Your task to perform on an android device: toggle priority inbox in the gmail app Image 0: 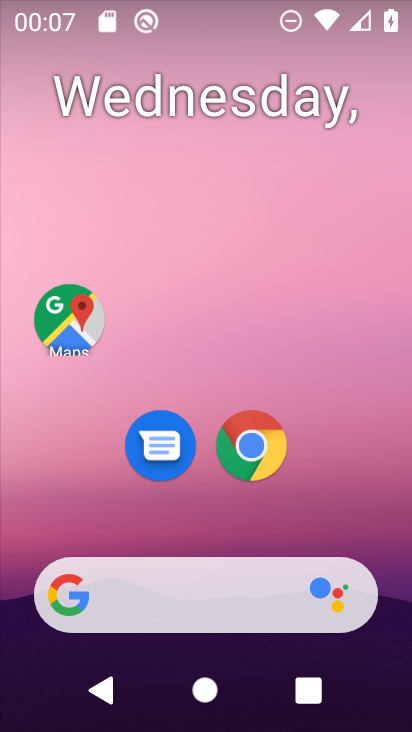
Step 0: drag from (274, 512) to (372, 54)
Your task to perform on an android device: toggle priority inbox in the gmail app Image 1: 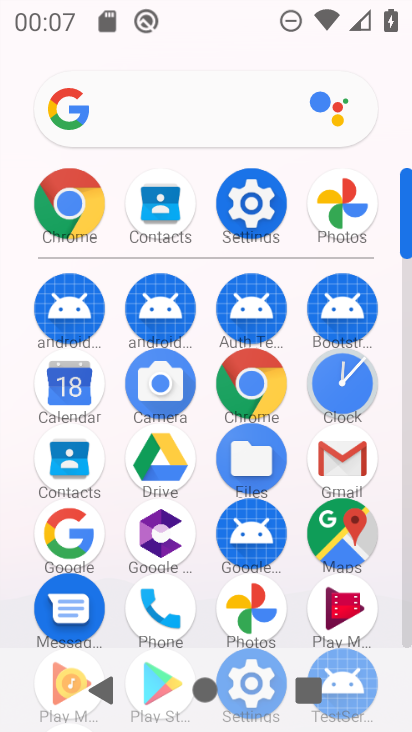
Step 1: click (337, 459)
Your task to perform on an android device: toggle priority inbox in the gmail app Image 2: 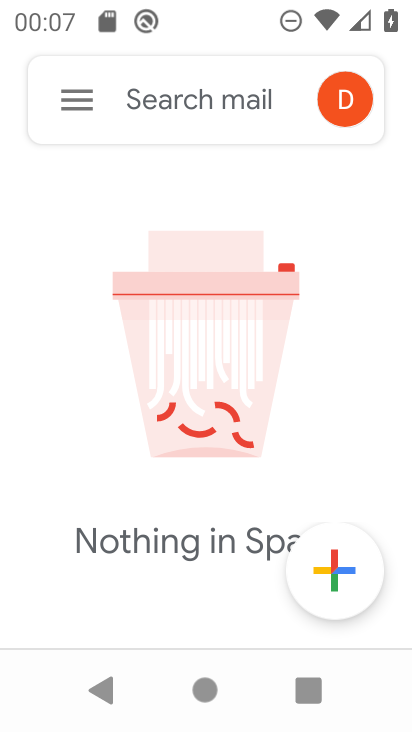
Step 2: click (87, 103)
Your task to perform on an android device: toggle priority inbox in the gmail app Image 3: 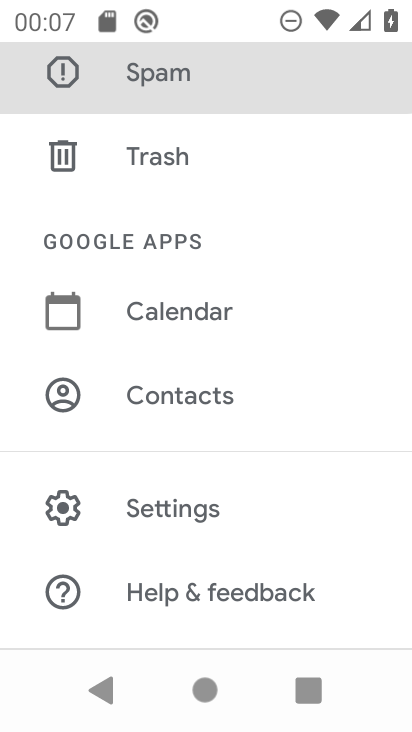
Step 3: click (185, 501)
Your task to perform on an android device: toggle priority inbox in the gmail app Image 4: 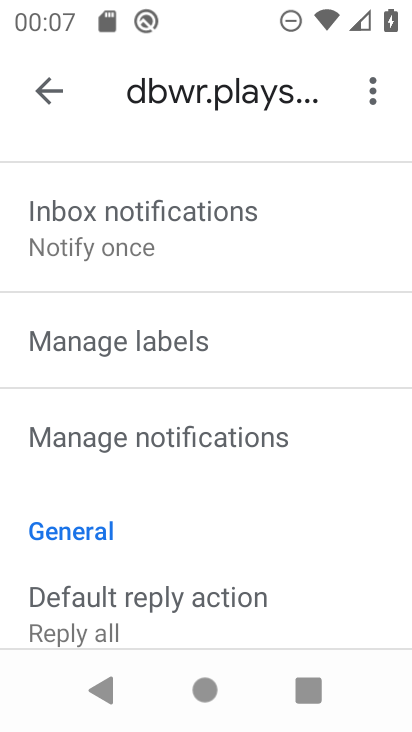
Step 4: drag from (197, 334) to (239, 589)
Your task to perform on an android device: toggle priority inbox in the gmail app Image 5: 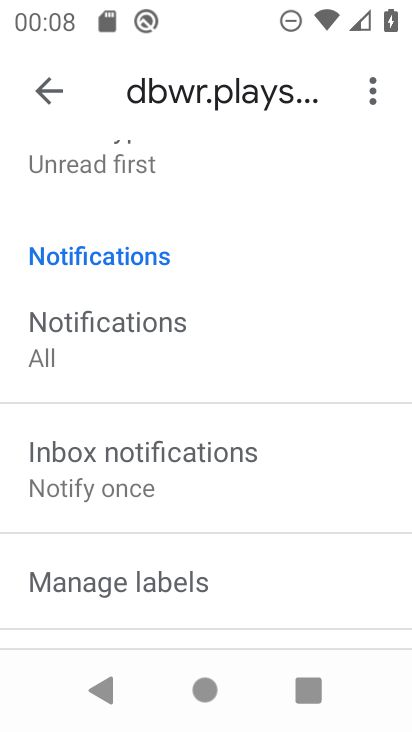
Step 5: drag from (177, 280) to (248, 519)
Your task to perform on an android device: toggle priority inbox in the gmail app Image 6: 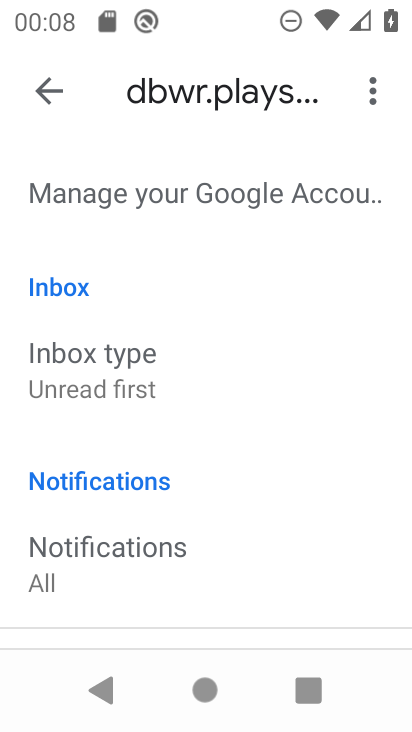
Step 6: click (178, 356)
Your task to perform on an android device: toggle priority inbox in the gmail app Image 7: 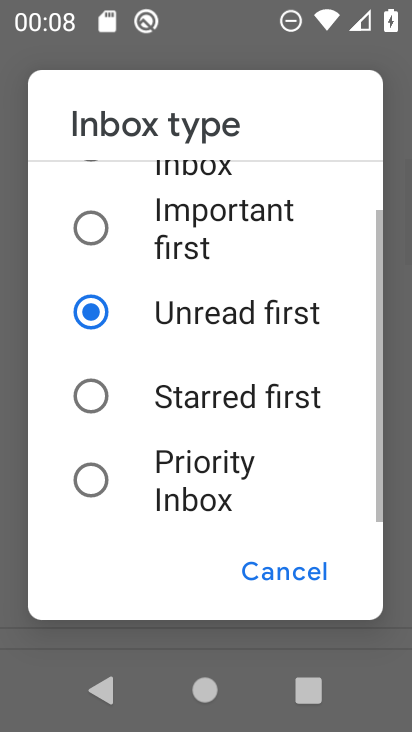
Step 7: click (174, 449)
Your task to perform on an android device: toggle priority inbox in the gmail app Image 8: 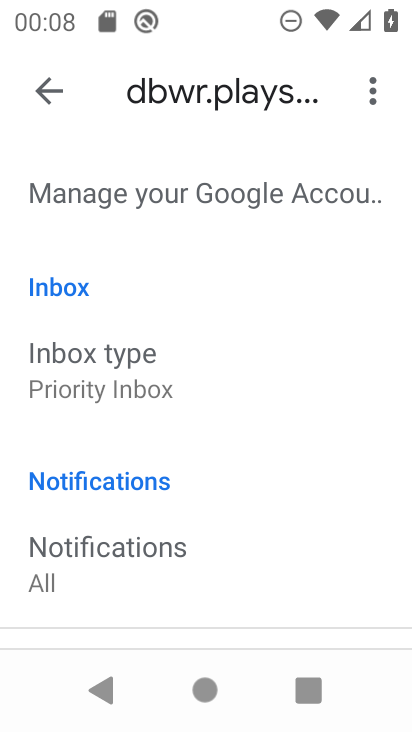
Step 8: task complete